Your task to perform on an android device: Open settings Image 0: 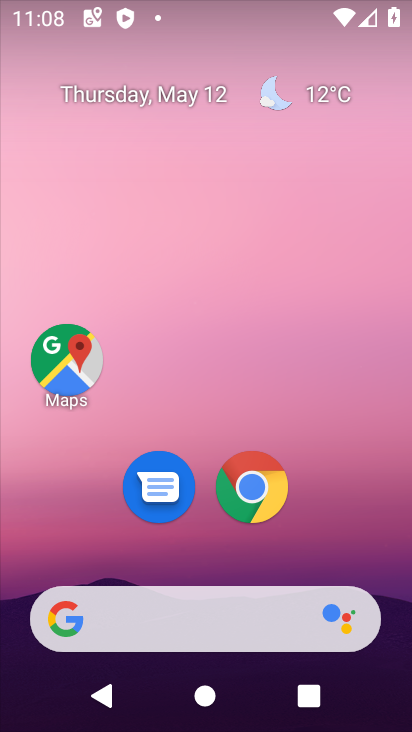
Step 0: drag from (356, 574) to (183, 0)
Your task to perform on an android device: Open settings Image 1: 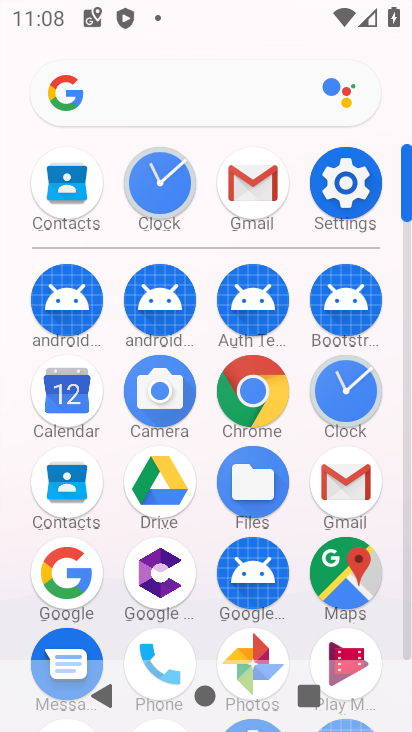
Step 1: click (357, 185)
Your task to perform on an android device: Open settings Image 2: 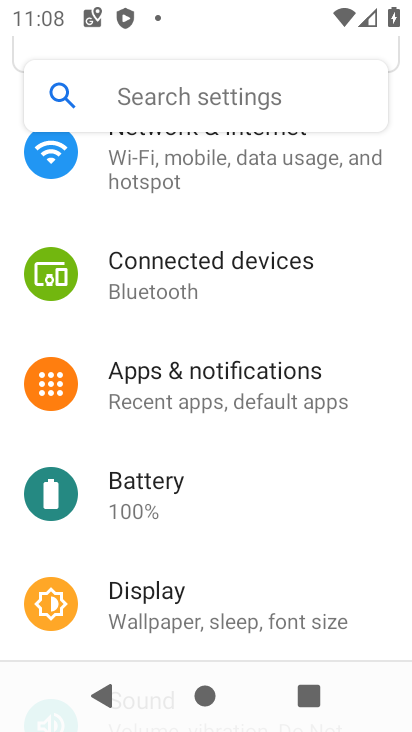
Step 2: task complete